Your task to perform on an android device: When is my next appointment? Image 0: 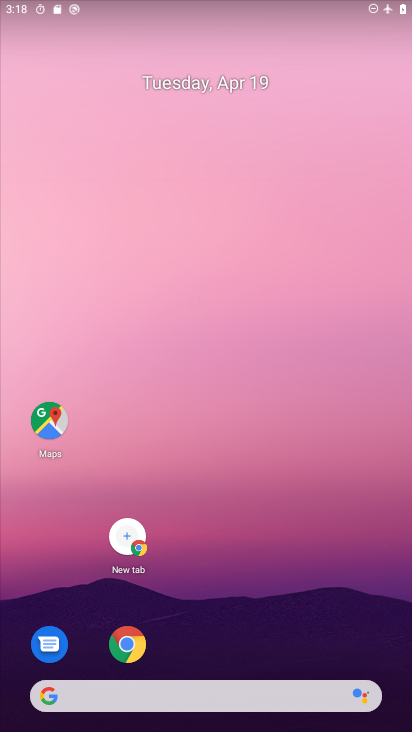
Step 0: drag from (214, 657) to (284, 89)
Your task to perform on an android device: When is my next appointment? Image 1: 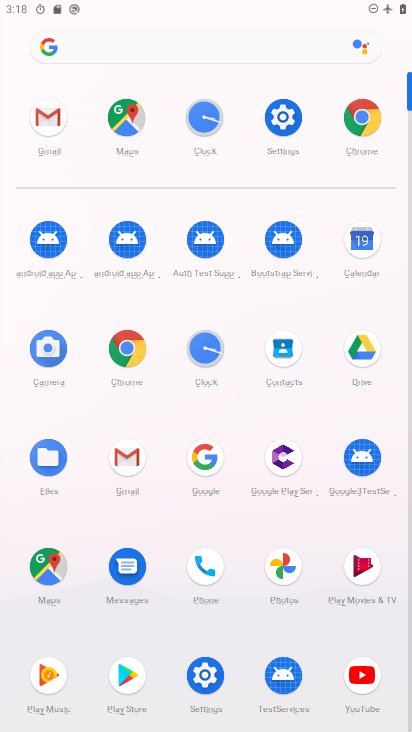
Step 1: click (371, 246)
Your task to perform on an android device: When is my next appointment? Image 2: 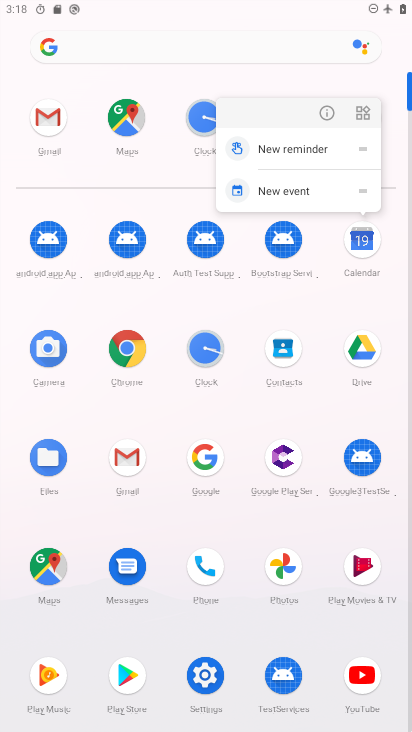
Step 2: click (360, 241)
Your task to perform on an android device: When is my next appointment? Image 3: 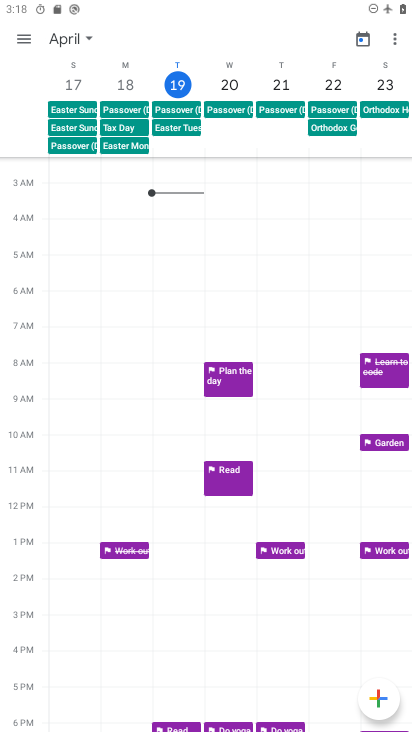
Step 3: drag from (167, 631) to (182, 340)
Your task to perform on an android device: When is my next appointment? Image 4: 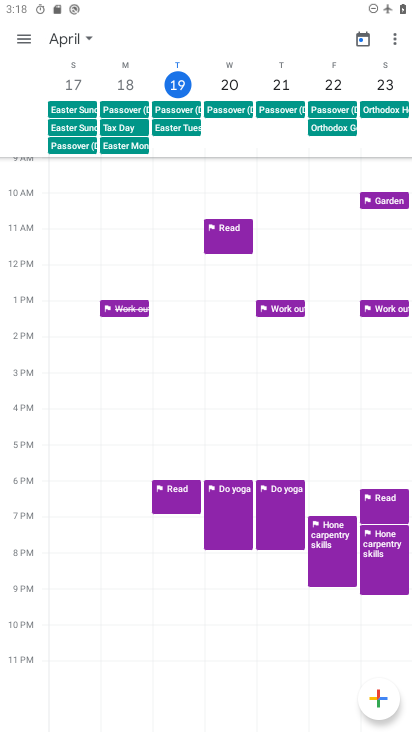
Step 4: click (180, 494)
Your task to perform on an android device: When is my next appointment? Image 5: 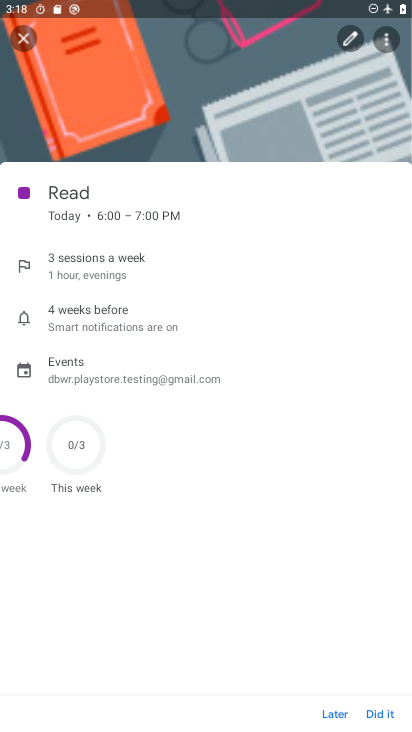
Step 5: task complete